Your task to perform on an android device: turn off data saver in the chrome app Image 0: 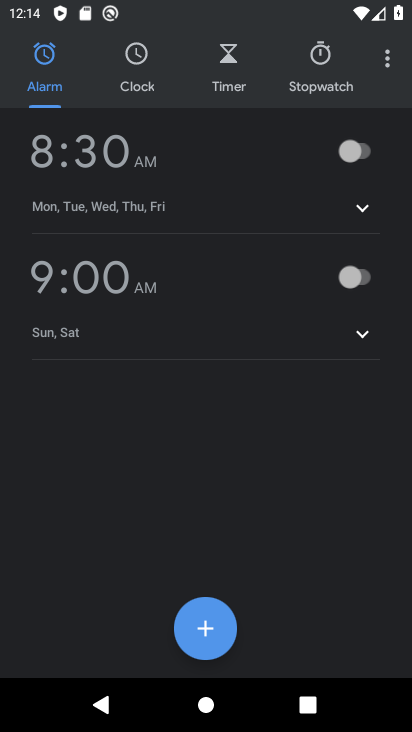
Step 0: task impossible